Your task to perform on an android device: turn on location history Image 0: 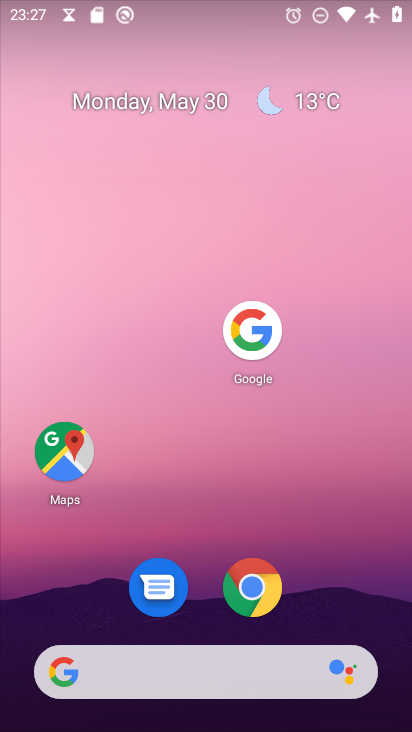
Step 0: press home button
Your task to perform on an android device: turn on location history Image 1: 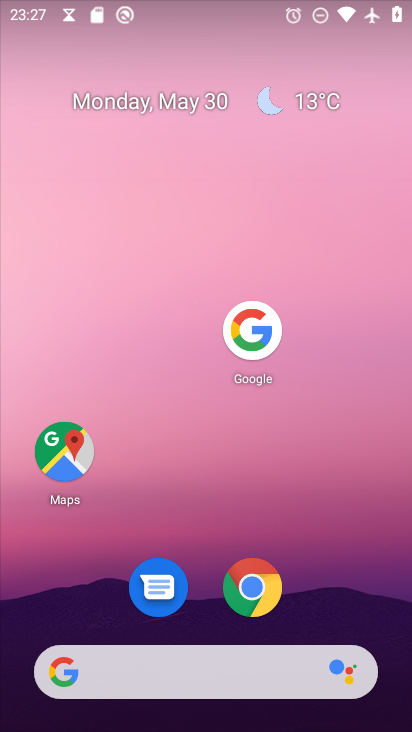
Step 1: click (66, 446)
Your task to perform on an android device: turn on location history Image 2: 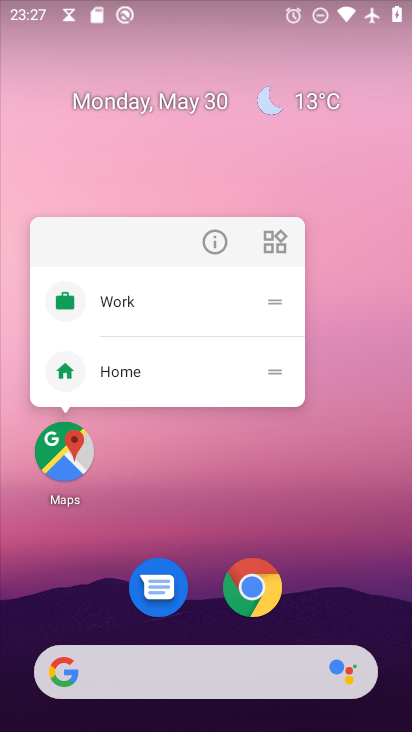
Step 2: click (60, 459)
Your task to perform on an android device: turn on location history Image 3: 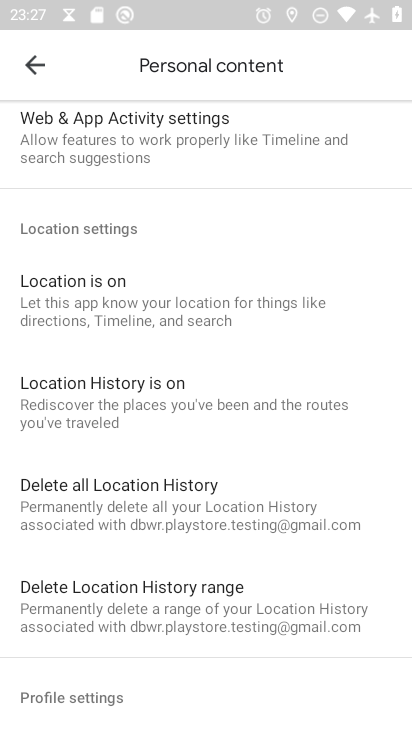
Step 3: click (154, 387)
Your task to perform on an android device: turn on location history Image 4: 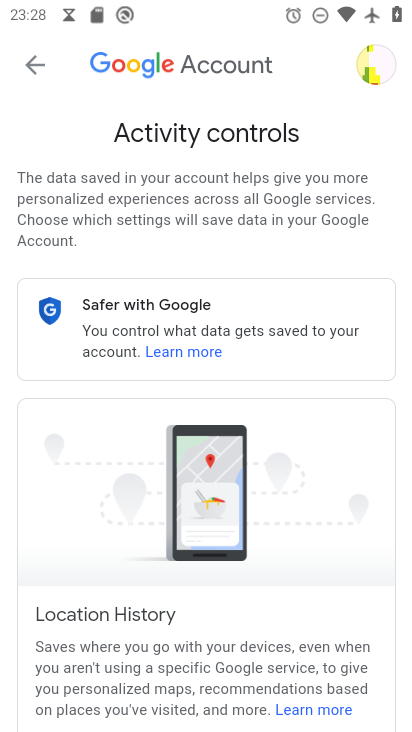
Step 4: task complete